Your task to perform on an android device: turn off improve location accuracy Image 0: 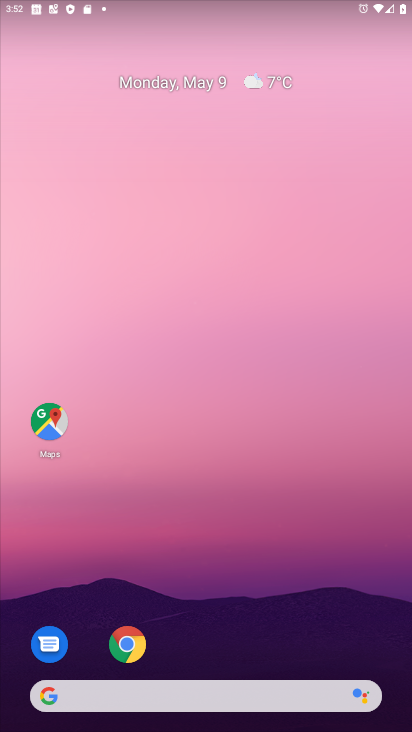
Step 0: drag from (303, 681) to (95, 35)
Your task to perform on an android device: turn off improve location accuracy Image 1: 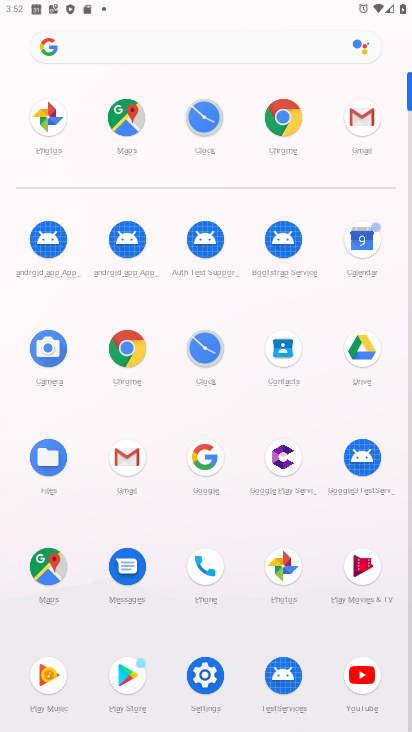
Step 1: click (202, 670)
Your task to perform on an android device: turn off improve location accuracy Image 2: 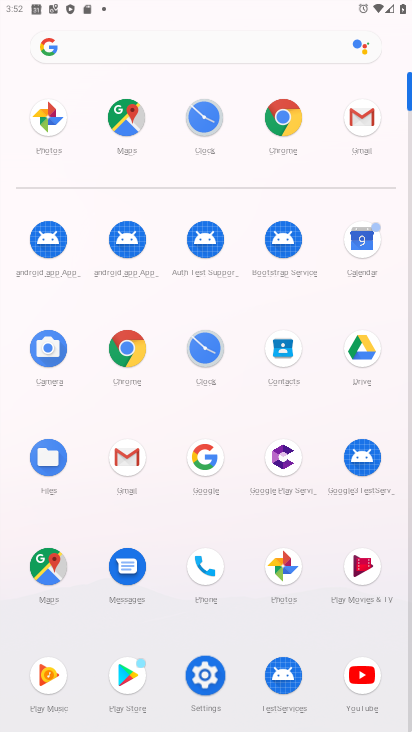
Step 2: click (201, 671)
Your task to perform on an android device: turn off improve location accuracy Image 3: 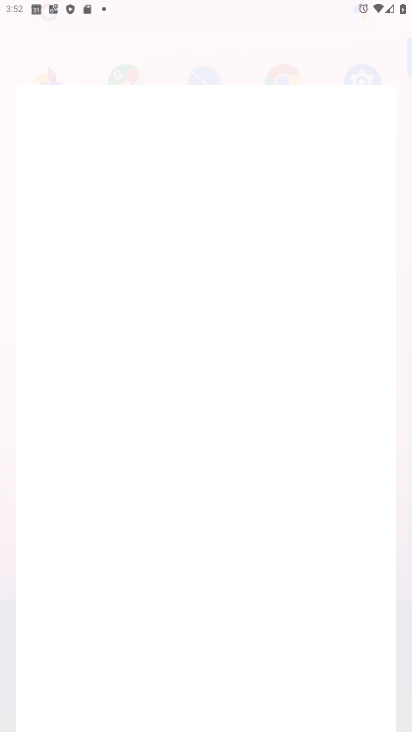
Step 3: click (201, 671)
Your task to perform on an android device: turn off improve location accuracy Image 4: 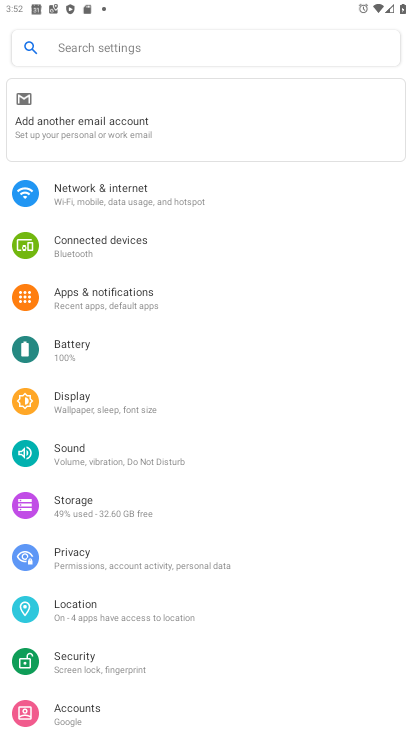
Step 4: click (71, 620)
Your task to perform on an android device: turn off improve location accuracy Image 5: 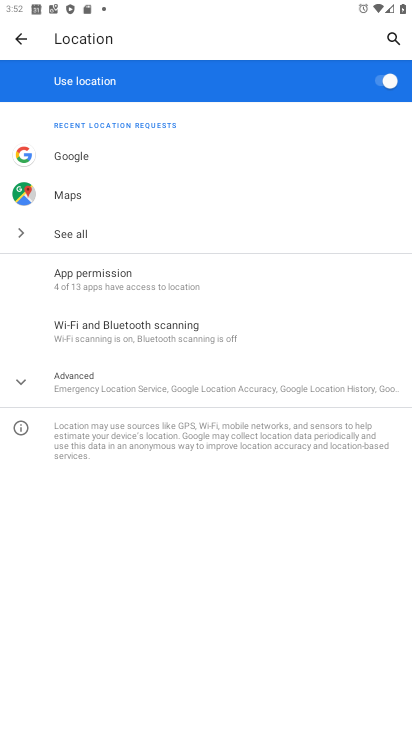
Step 5: click (89, 387)
Your task to perform on an android device: turn off improve location accuracy Image 6: 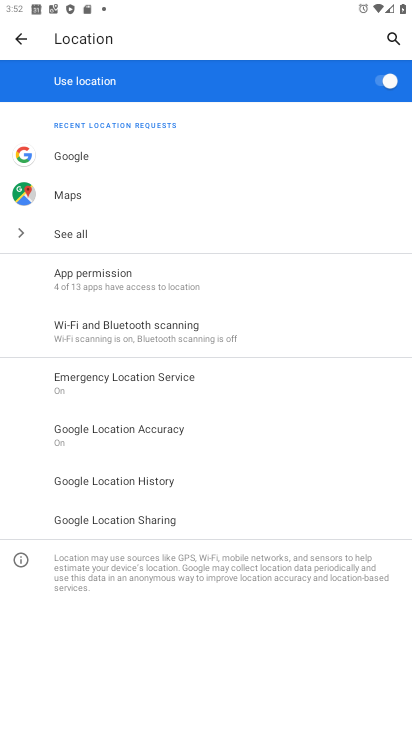
Step 6: click (89, 387)
Your task to perform on an android device: turn off improve location accuracy Image 7: 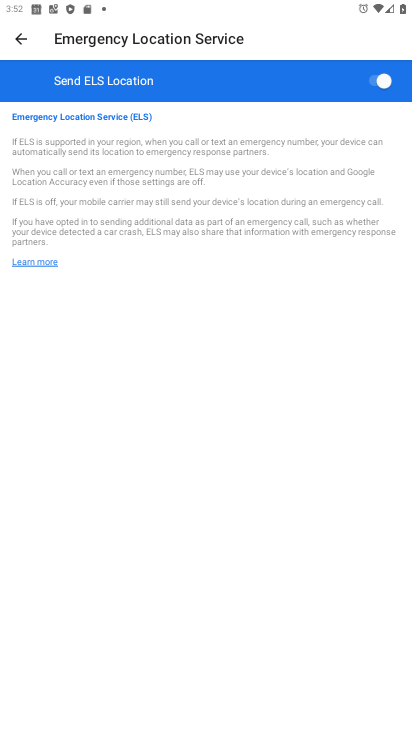
Step 7: click (20, 39)
Your task to perform on an android device: turn off improve location accuracy Image 8: 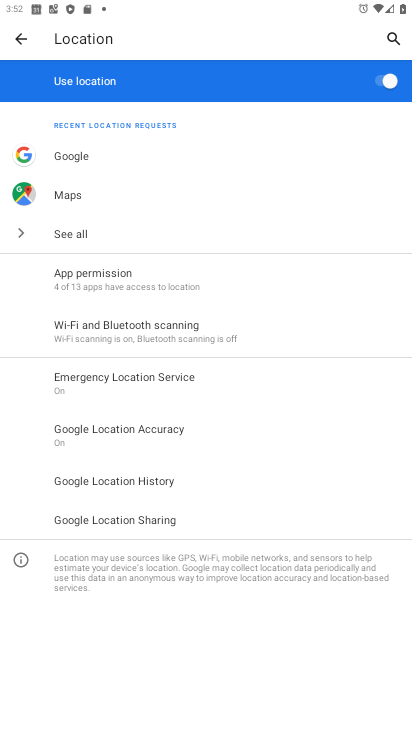
Step 8: click (121, 431)
Your task to perform on an android device: turn off improve location accuracy Image 9: 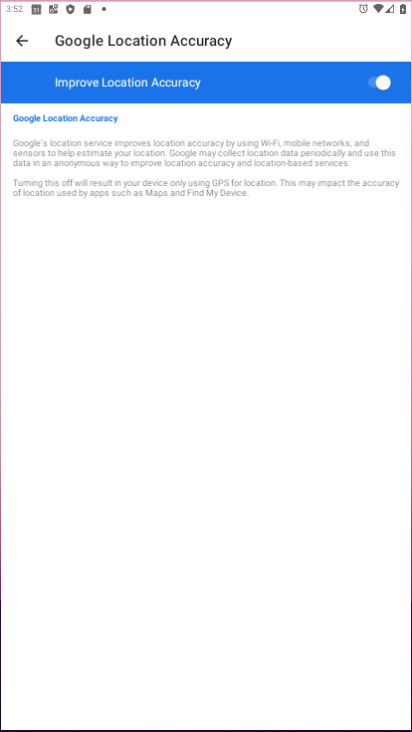
Step 9: click (122, 433)
Your task to perform on an android device: turn off improve location accuracy Image 10: 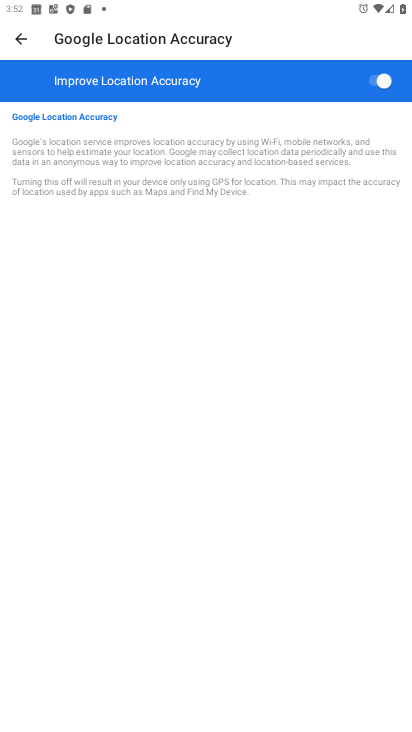
Step 10: click (386, 92)
Your task to perform on an android device: turn off improve location accuracy Image 11: 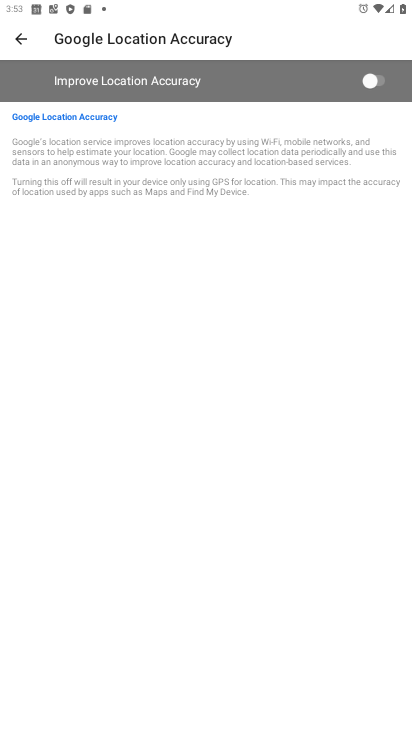
Step 11: task complete